Your task to perform on an android device: Show me the best rated power washer on Home Depot. Image 0: 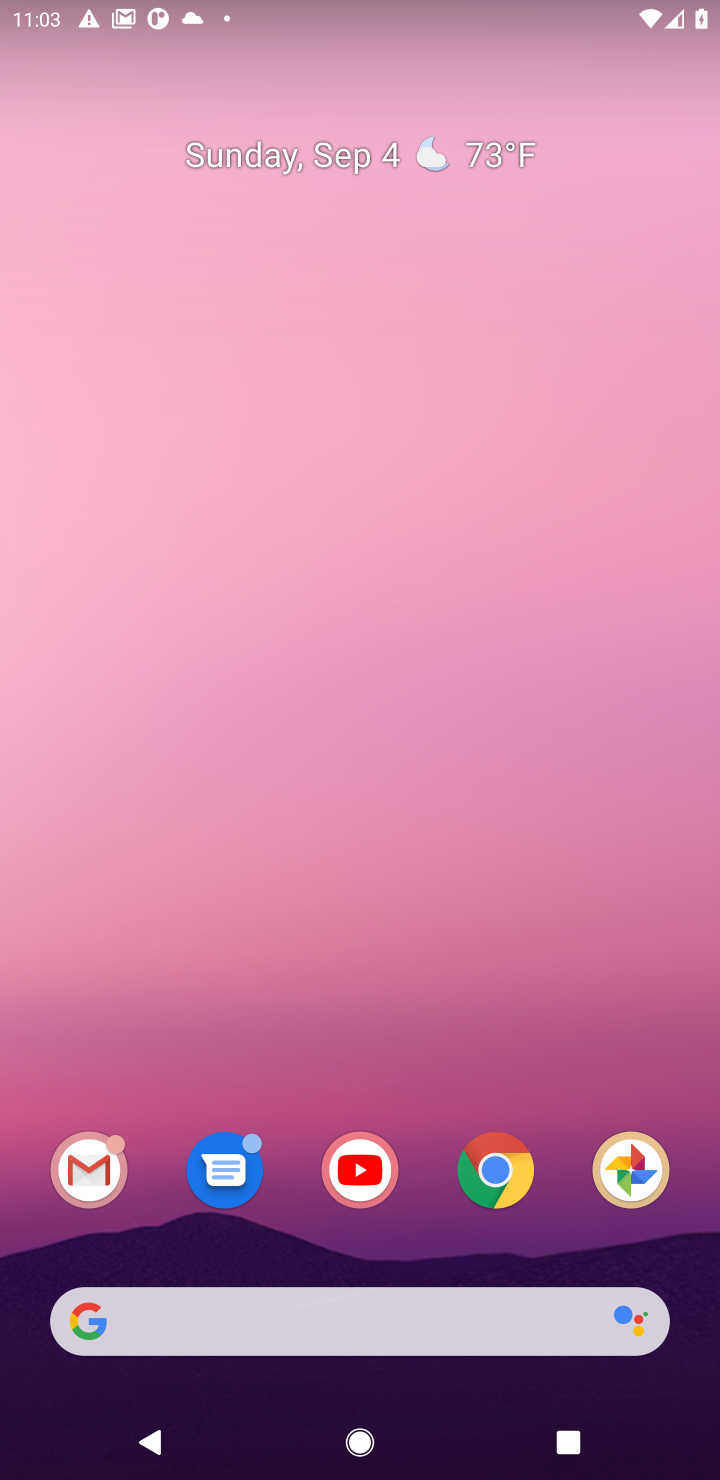
Step 0: press home button
Your task to perform on an android device: Show me the best rated power washer on Home Depot. Image 1: 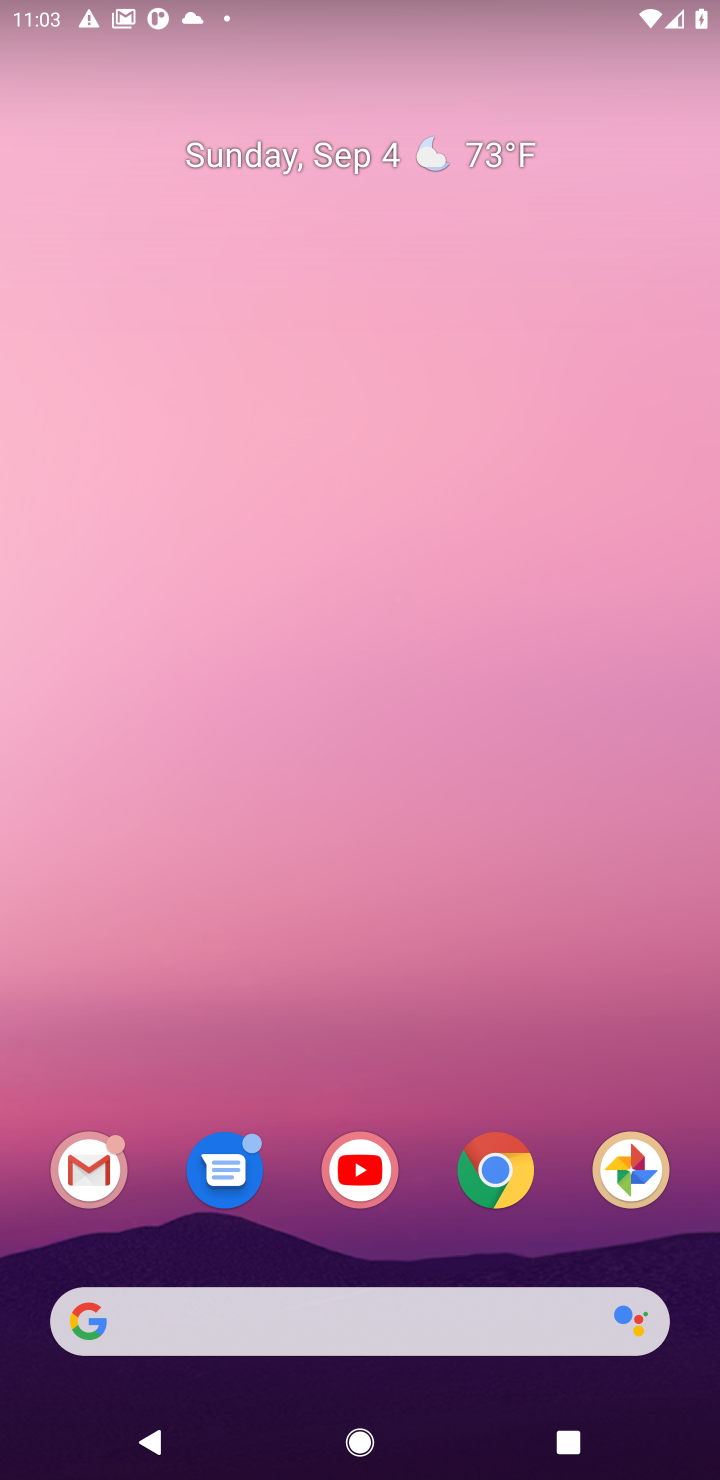
Step 1: drag from (274, 1109) to (272, 77)
Your task to perform on an android device: Show me the best rated power washer on Home Depot. Image 2: 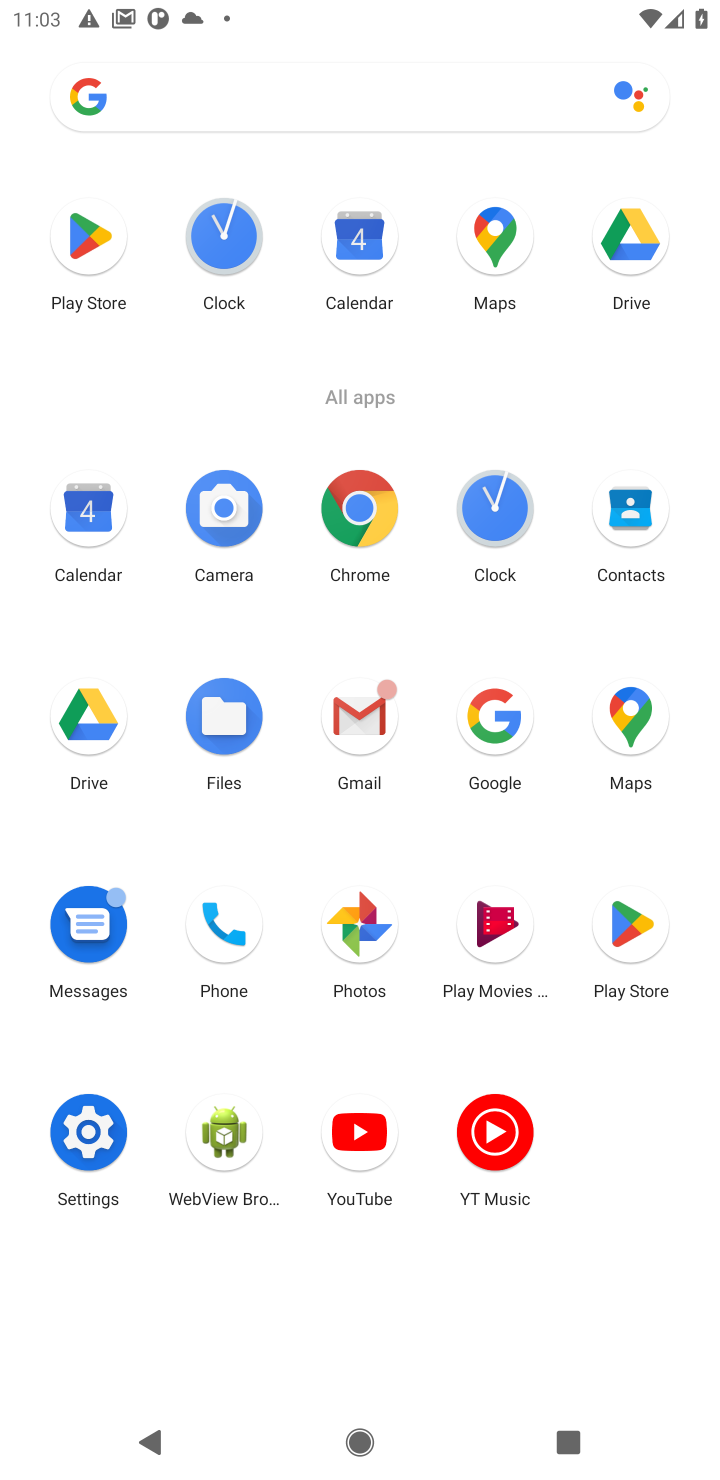
Step 2: click (373, 546)
Your task to perform on an android device: Show me the best rated power washer on Home Depot. Image 3: 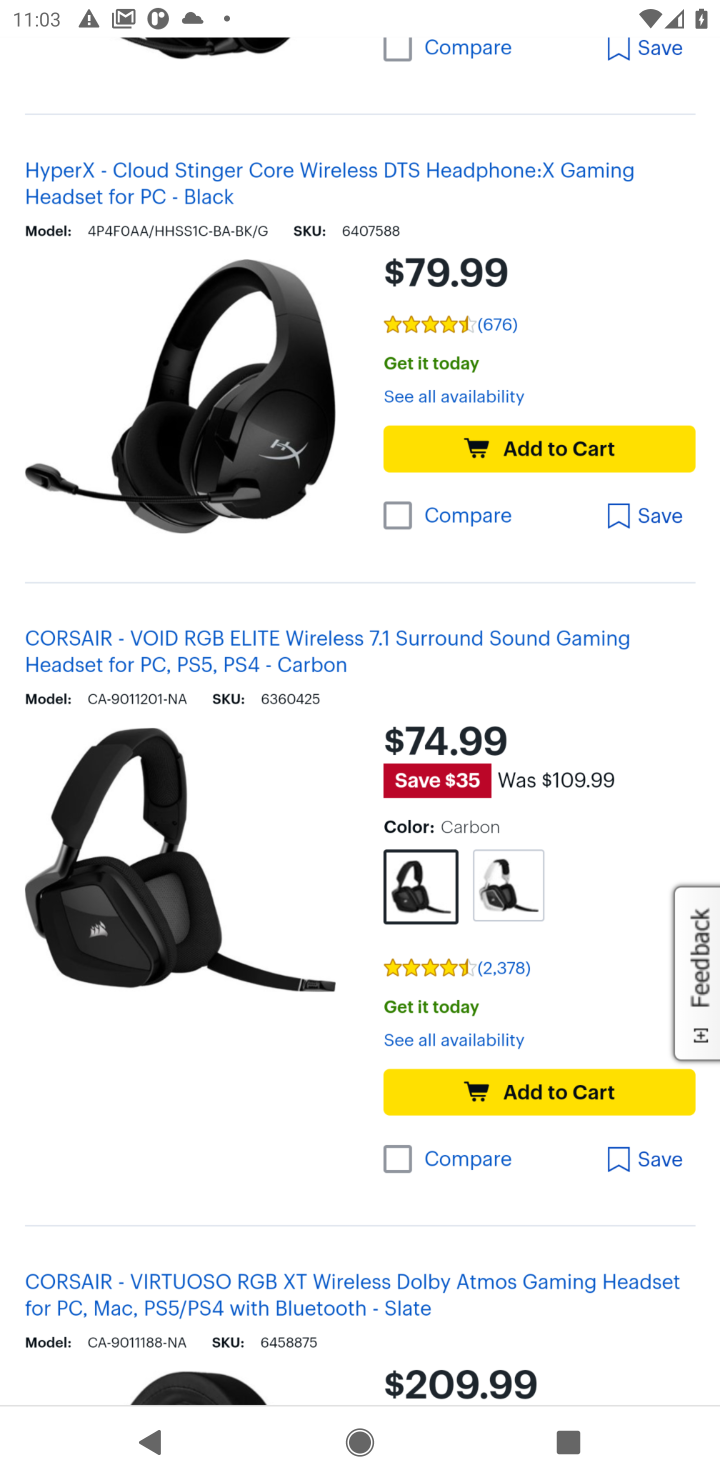
Step 3: drag from (411, 739) to (406, 1375)
Your task to perform on an android device: Show me the best rated power washer on Home Depot. Image 4: 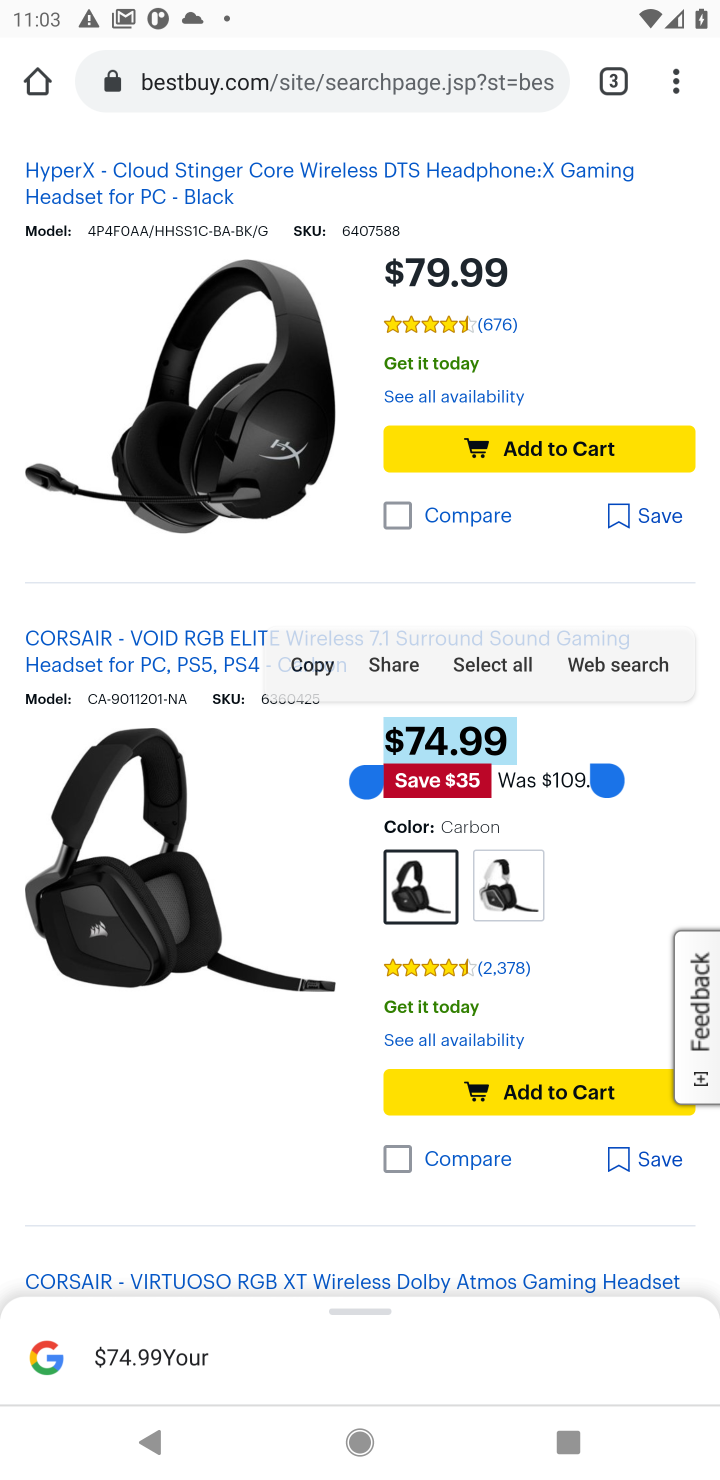
Step 4: click (592, 99)
Your task to perform on an android device: Show me the best rated power washer on Home Depot. Image 5: 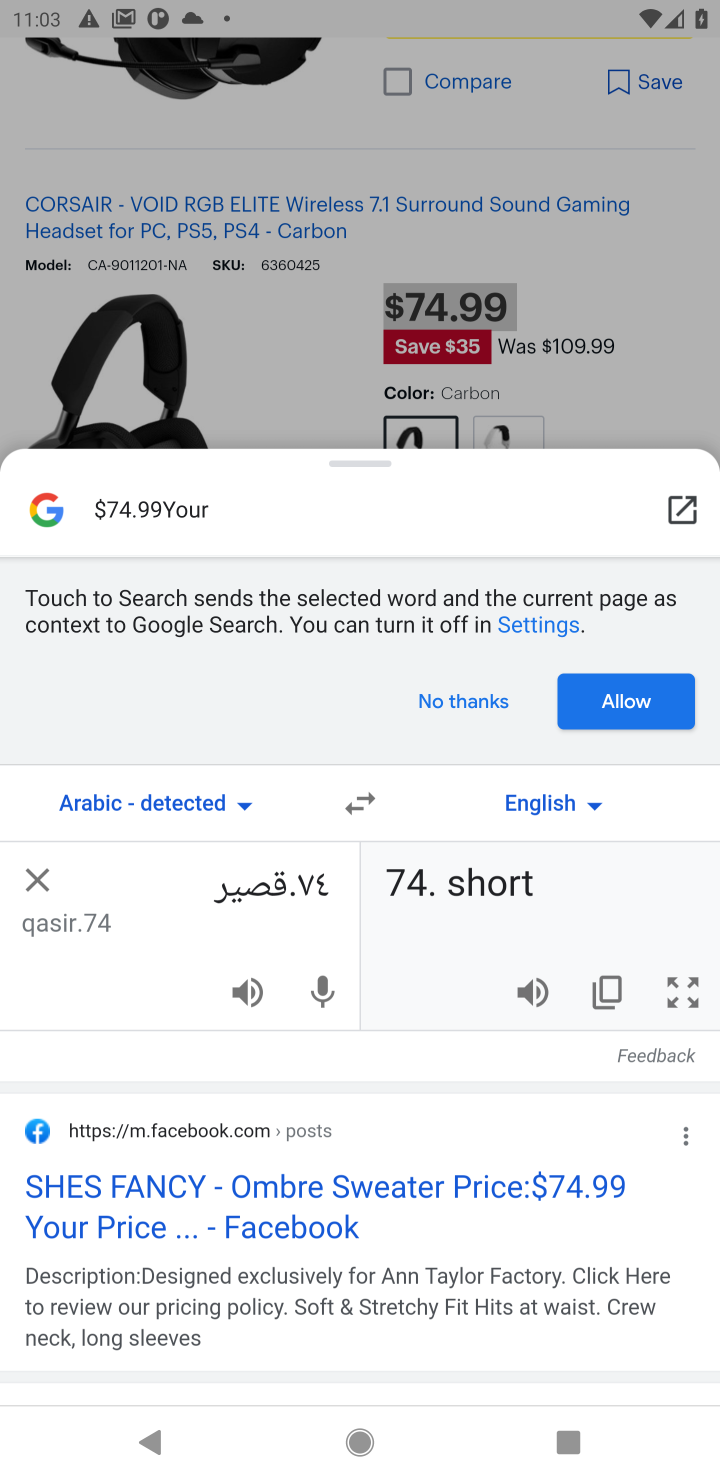
Step 5: press home button
Your task to perform on an android device: Show me the best rated power washer on Home Depot. Image 6: 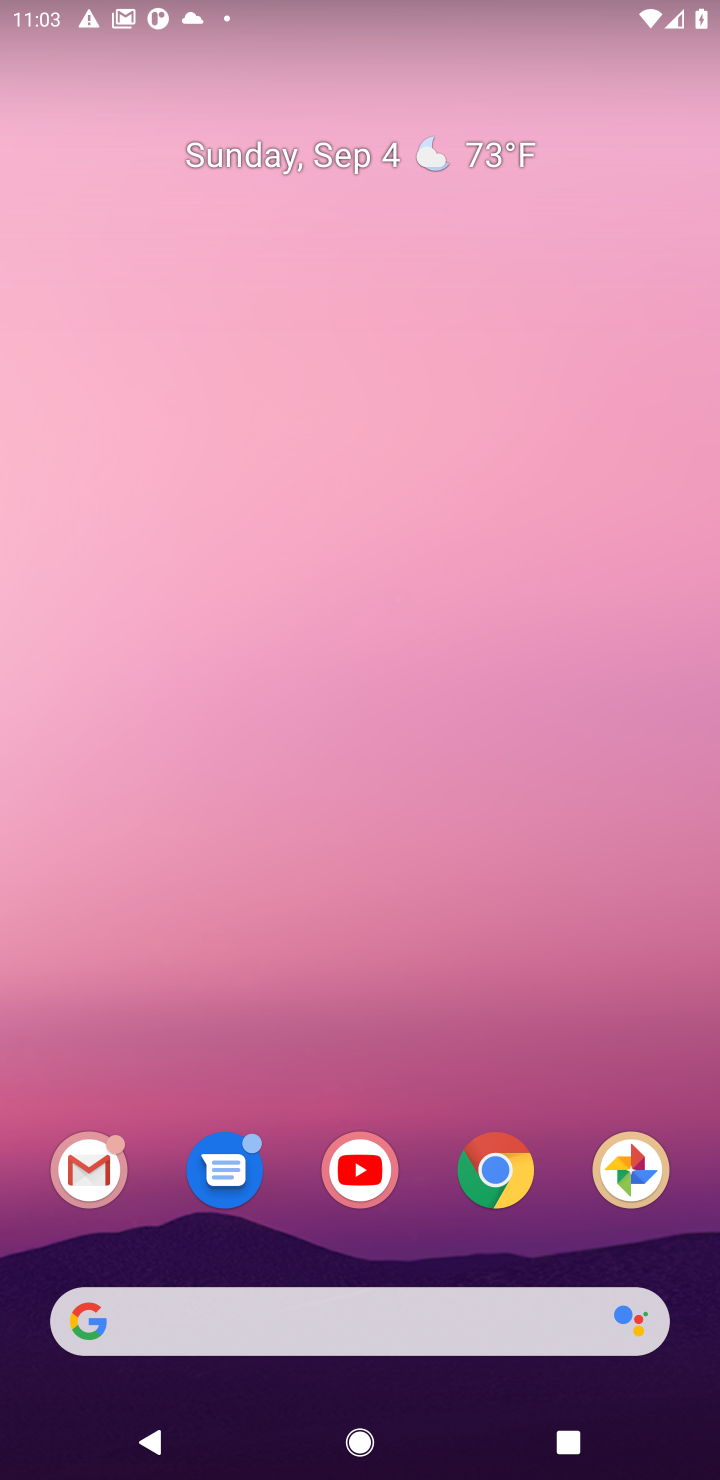
Step 6: drag from (427, 1287) to (434, 430)
Your task to perform on an android device: Show me the best rated power washer on Home Depot. Image 7: 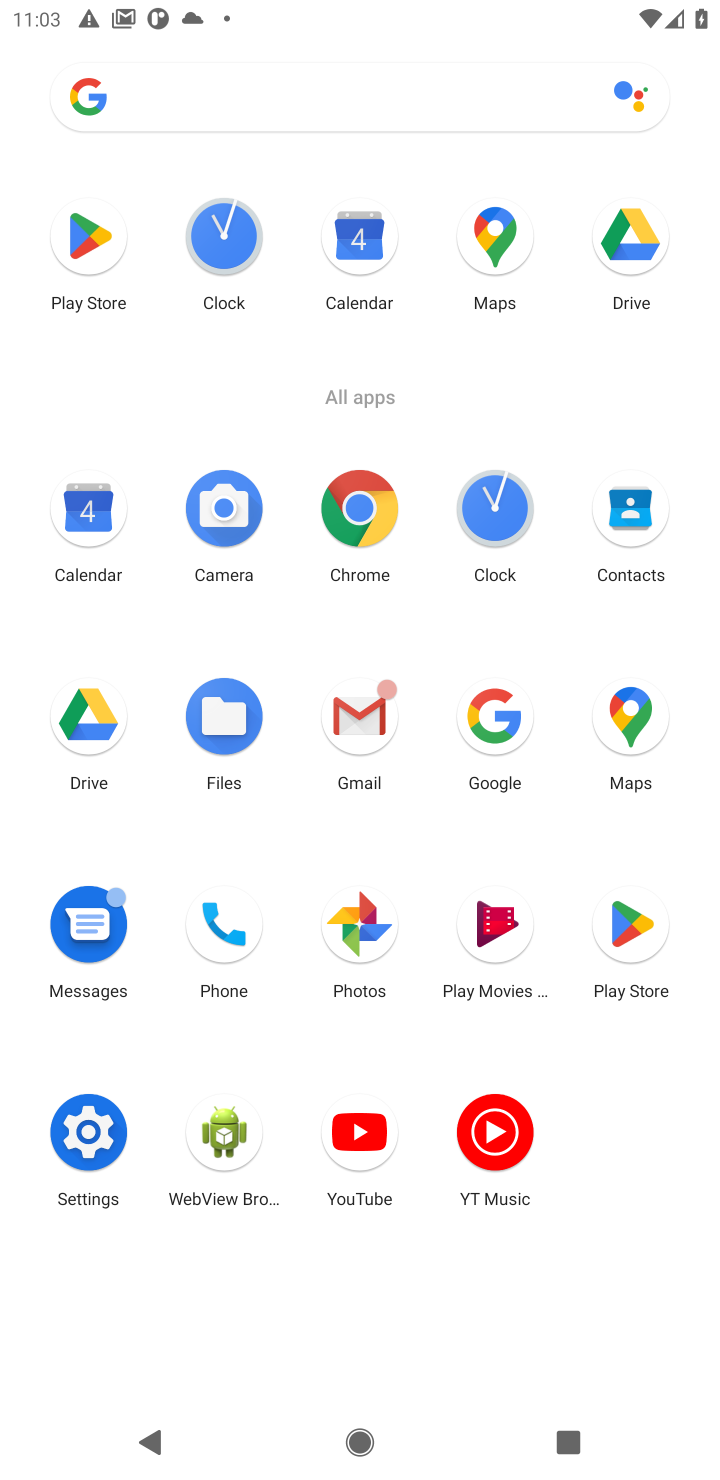
Step 7: click (384, 502)
Your task to perform on an android device: Show me the best rated power washer on Home Depot. Image 8: 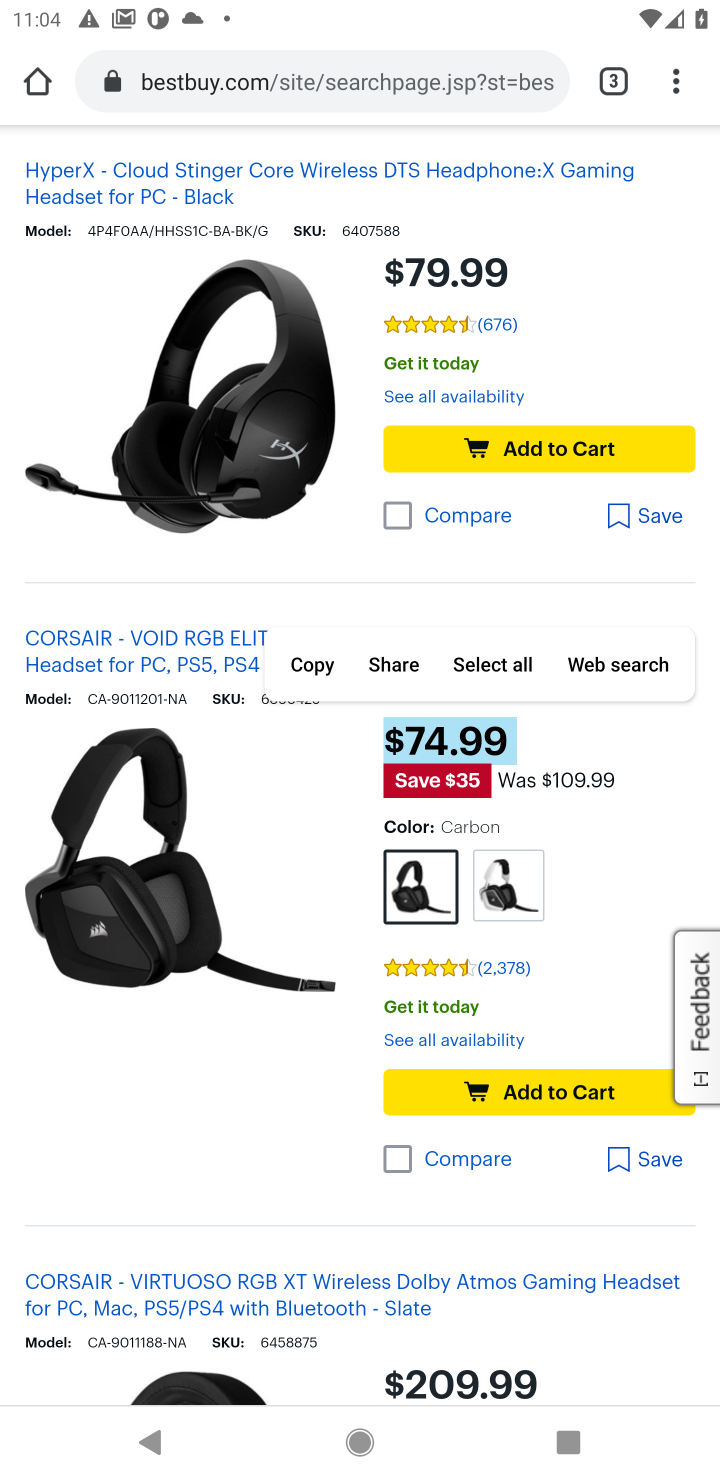
Step 8: press home button
Your task to perform on an android device: Show me the best rated power washer on Home Depot. Image 9: 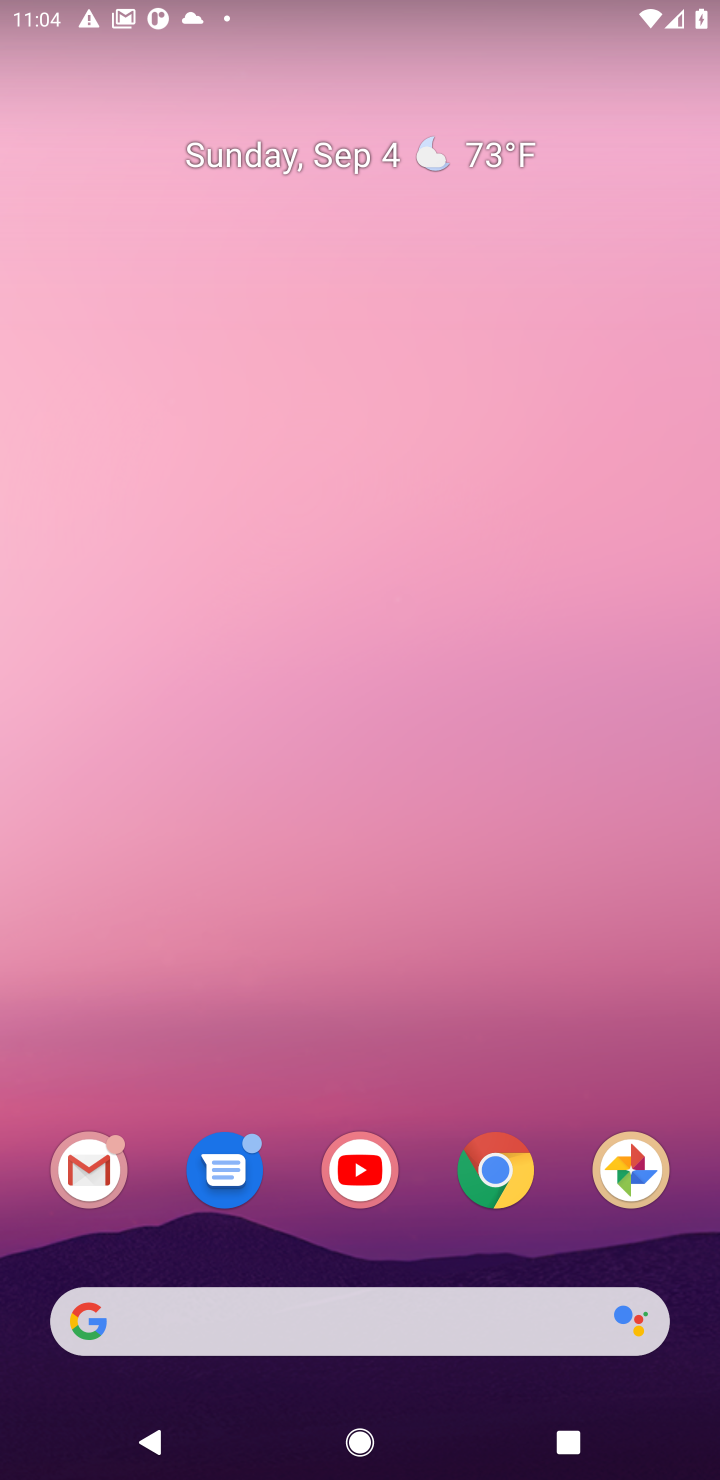
Step 9: drag from (462, 1285) to (341, 282)
Your task to perform on an android device: Show me the best rated power washer on Home Depot. Image 10: 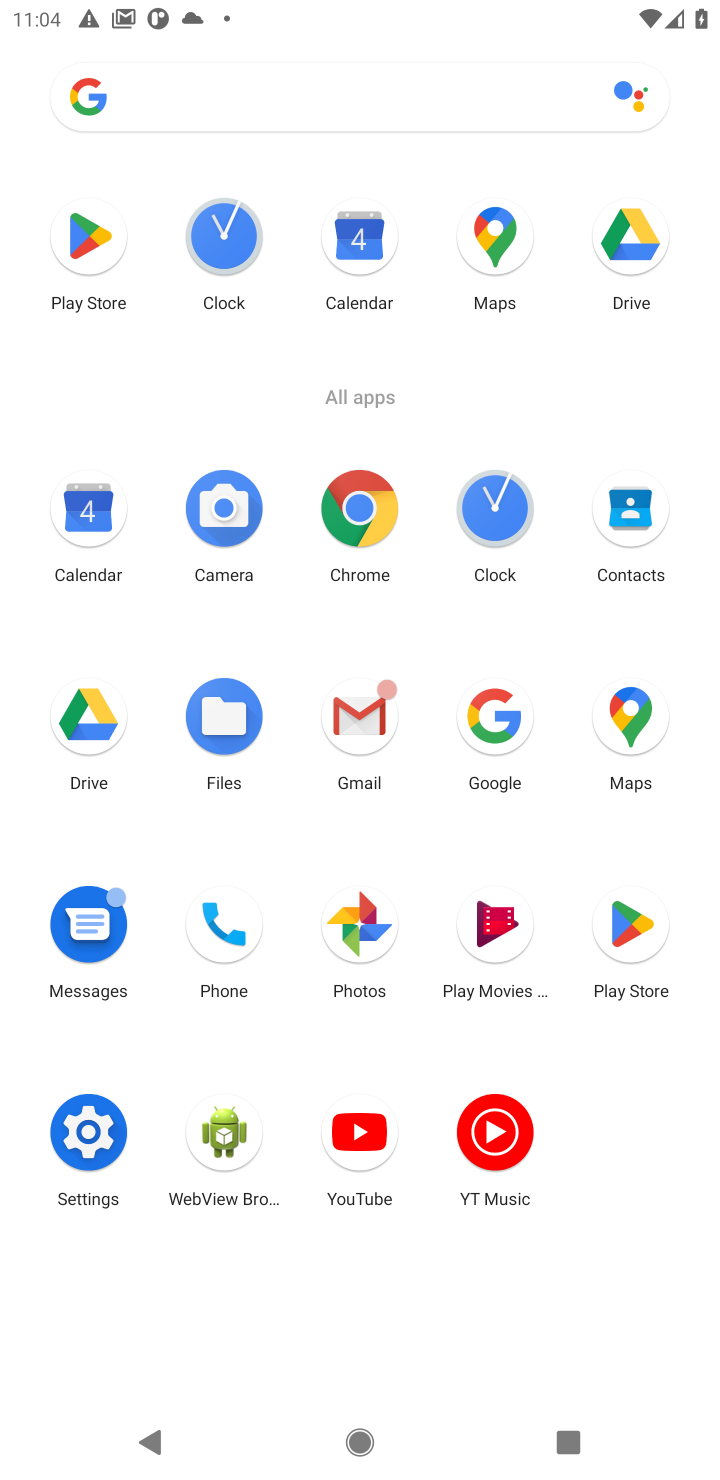
Step 10: click (378, 496)
Your task to perform on an android device: Show me the best rated power washer on Home Depot. Image 11: 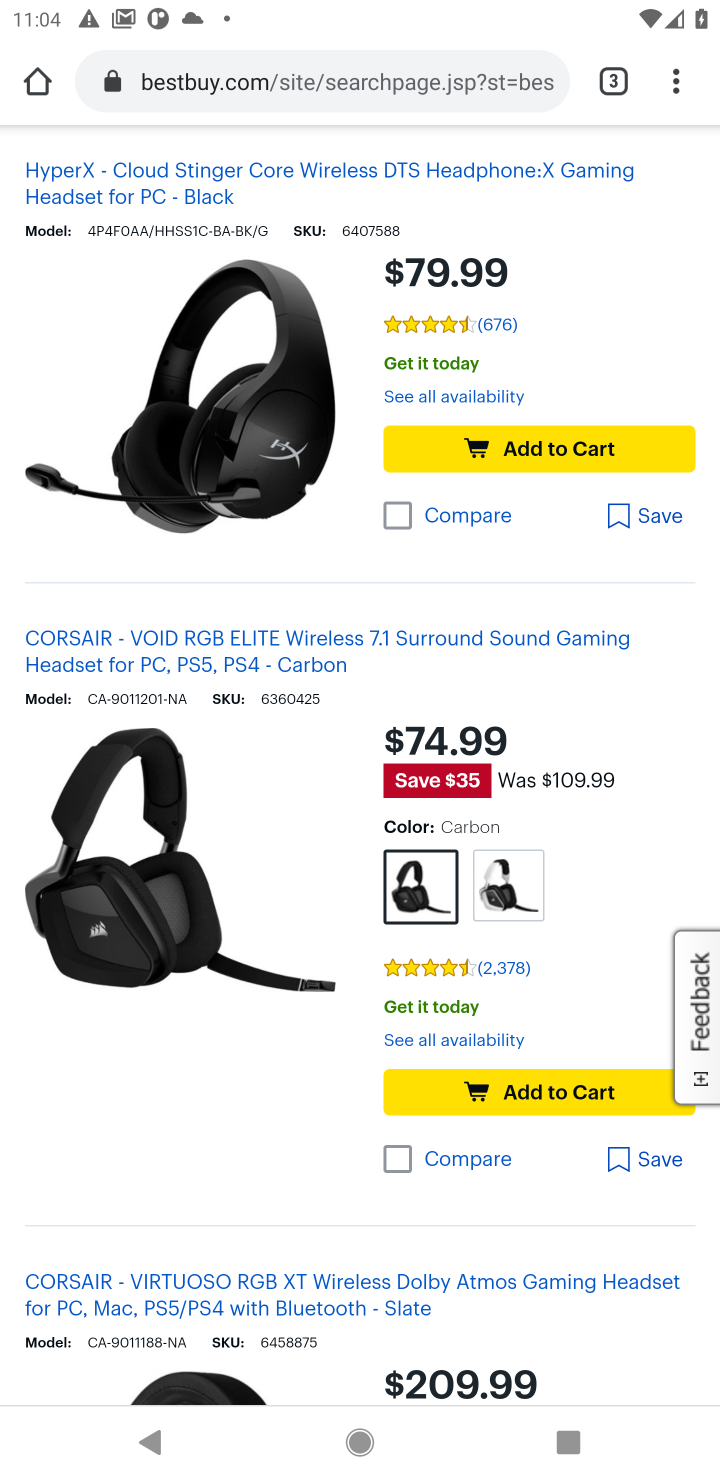
Step 11: click (602, 66)
Your task to perform on an android device: Show me the best rated power washer on Home Depot. Image 12: 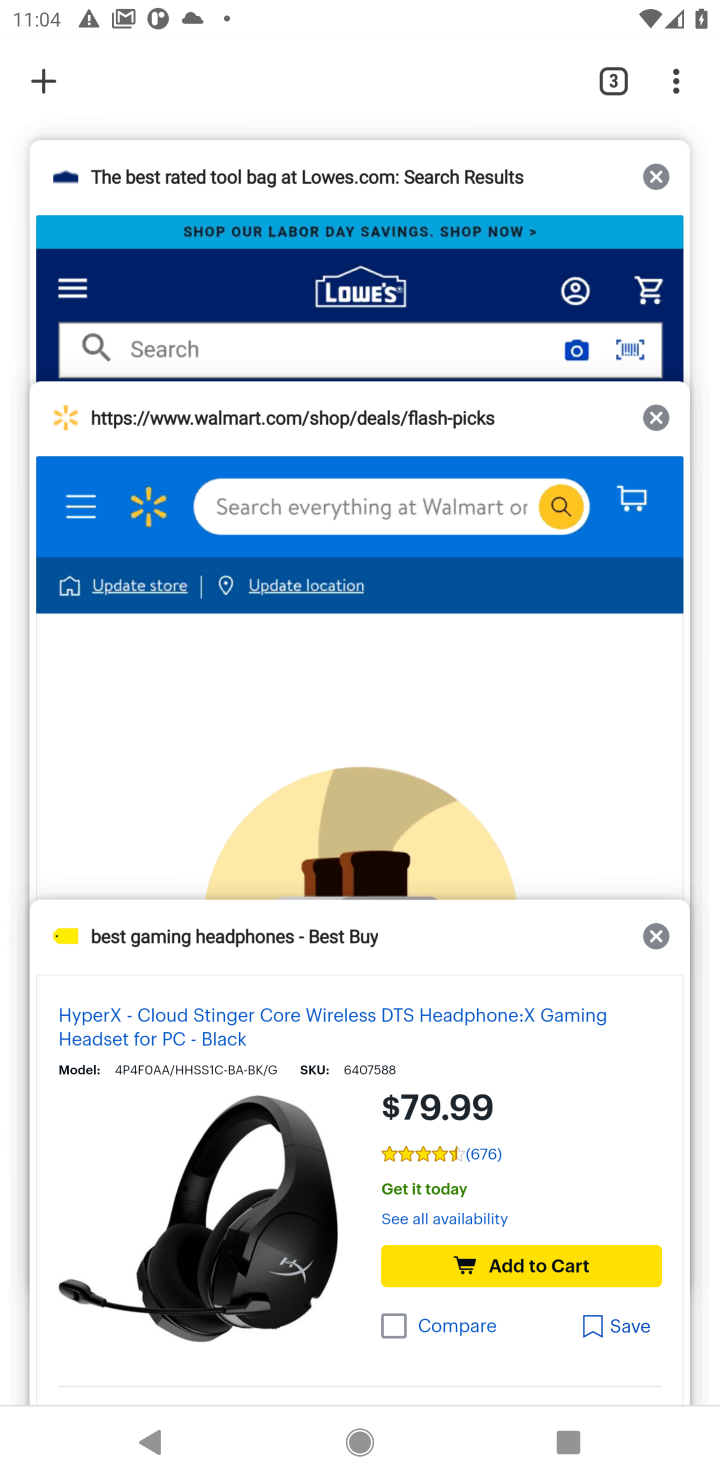
Step 12: click (55, 99)
Your task to perform on an android device: Show me the best rated power washer on Home Depot. Image 13: 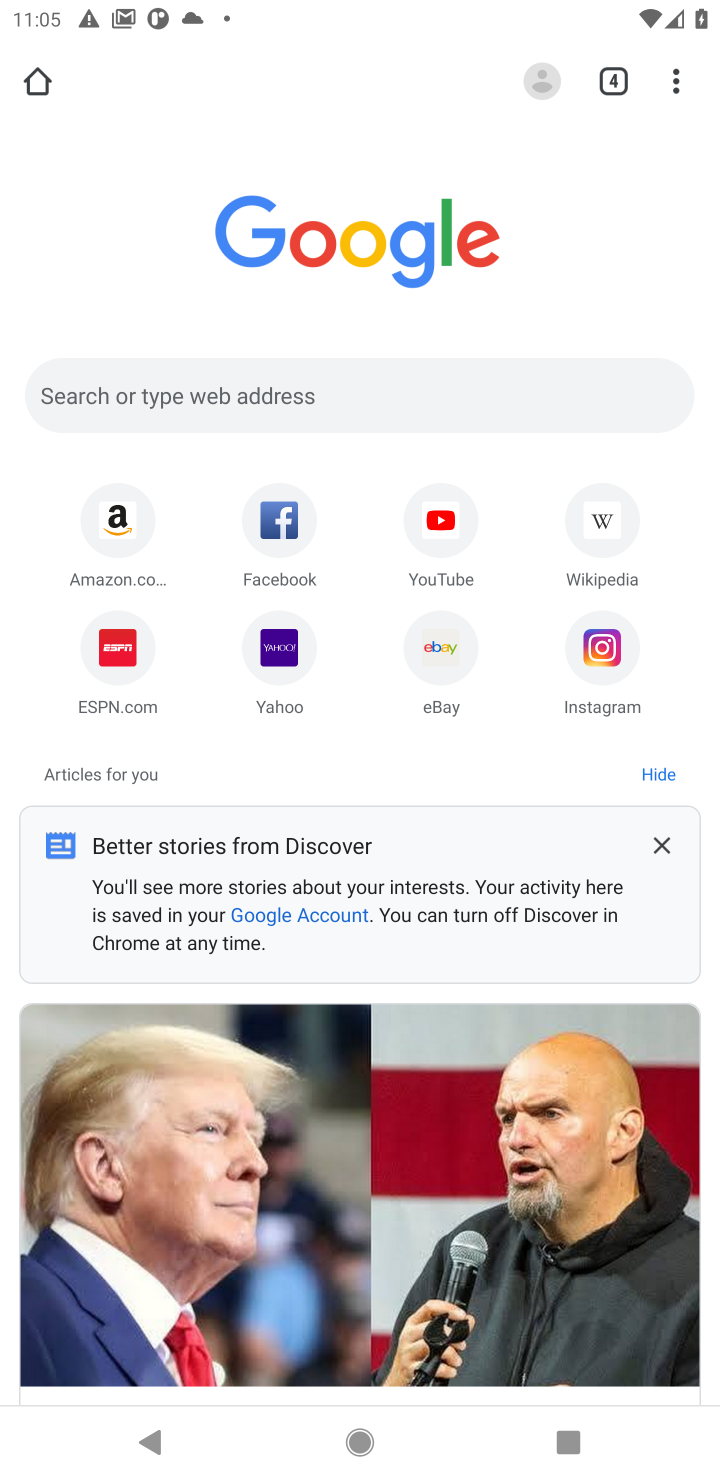
Step 13: click (179, 398)
Your task to perform on an android device: Show me the best rated power washer on Home Depot. Image 14: 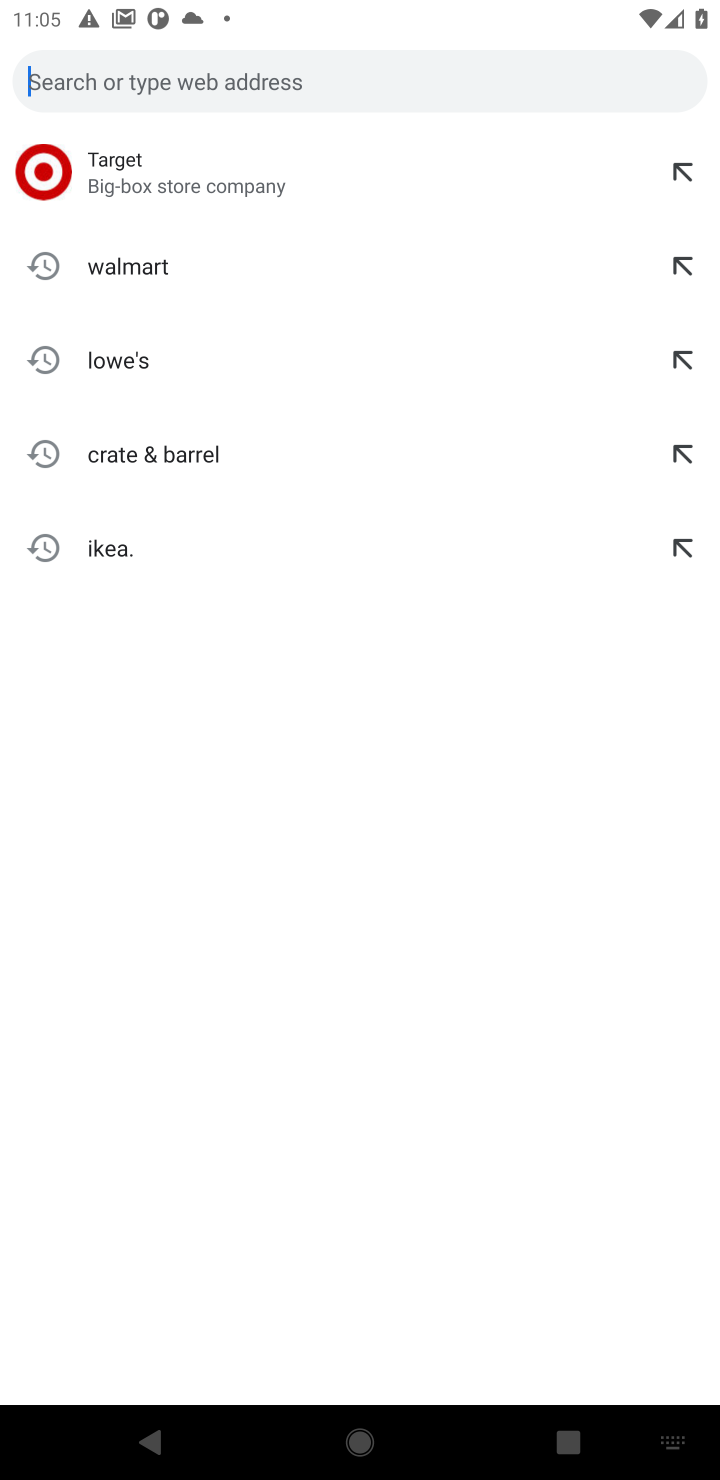
Step 14: type "Home Depot"
Your task to perform on an android device: Show me the best rated power washer on Home Depot. Image 15: 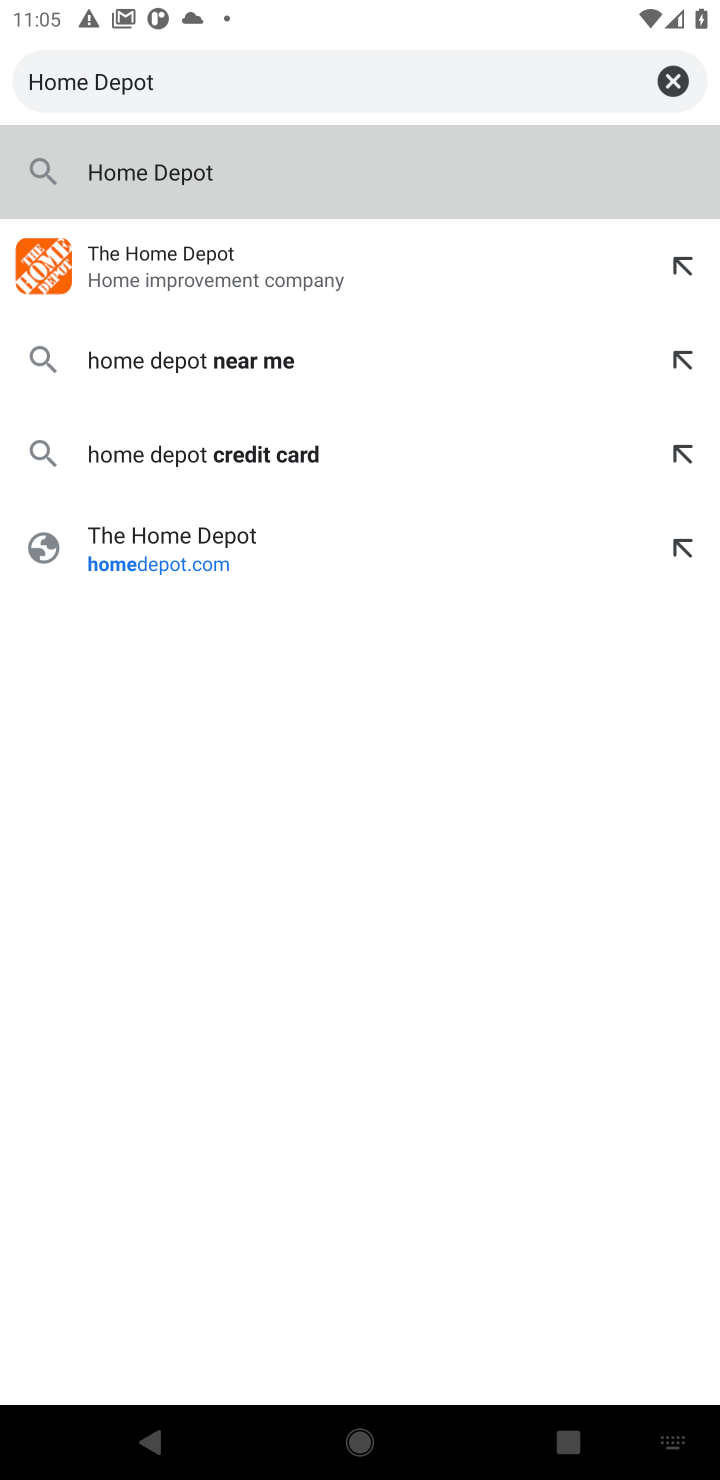
Step 15: type ""
Your task to perform on an android device: Show me the best rated power washer on Home Depot. Image 16: 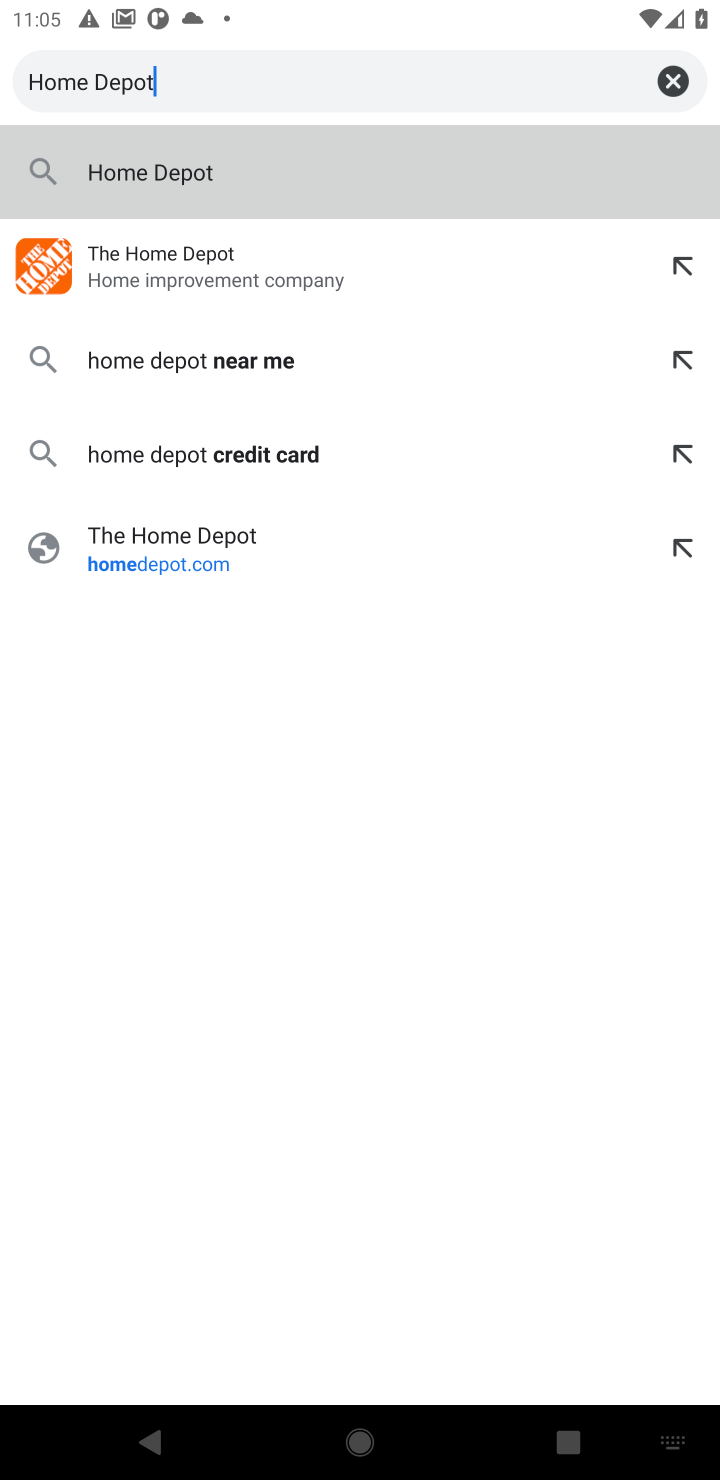
Step 16: click (154, 197)
Your task to perform on an android device: Show me the best rated power washer on Home Depot. Image 17: 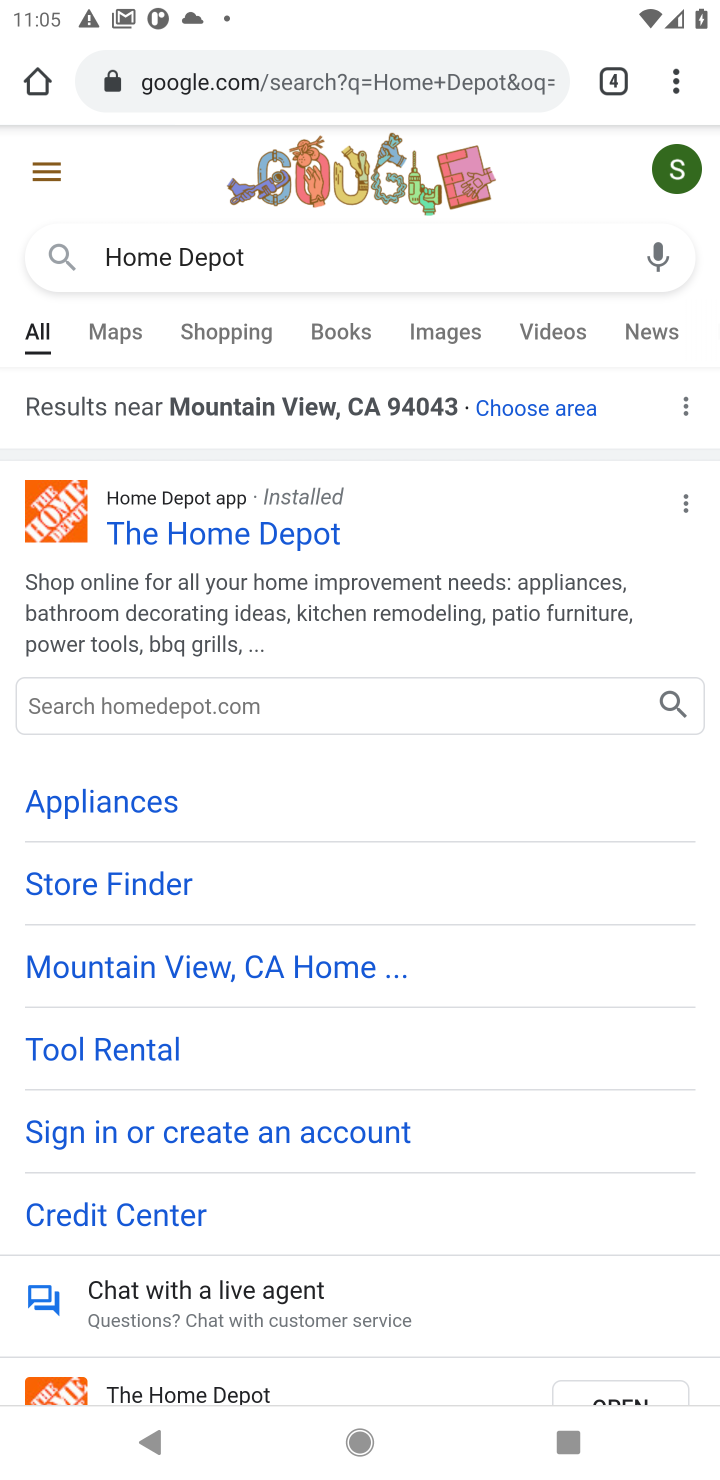
Step 17: click (190, 523)
Your task to perform on an android device: Show me the best rated power washer on Home Depot. Image 18: 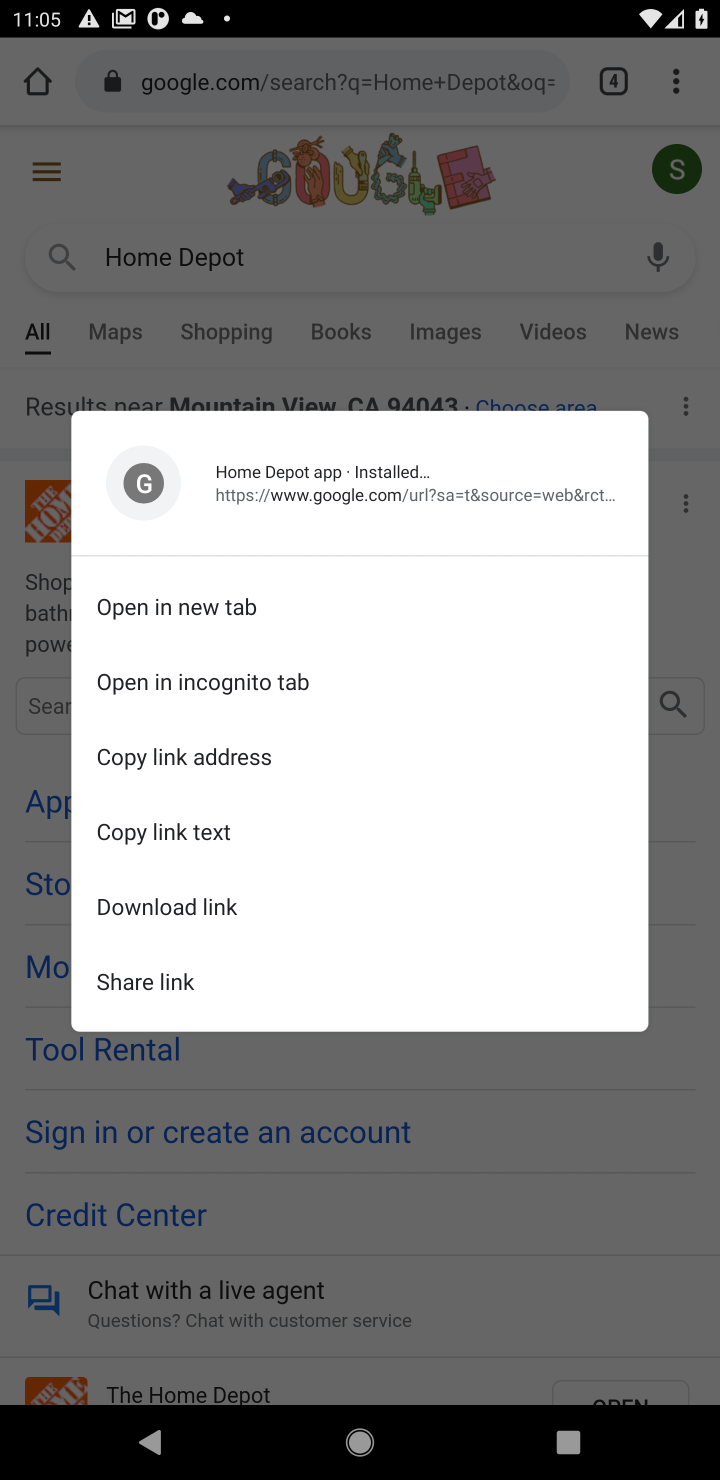
Step 18: click (696, 782)
Your task to perform on an android device: Show me the best rated power washer on Home Depot. Image 19: 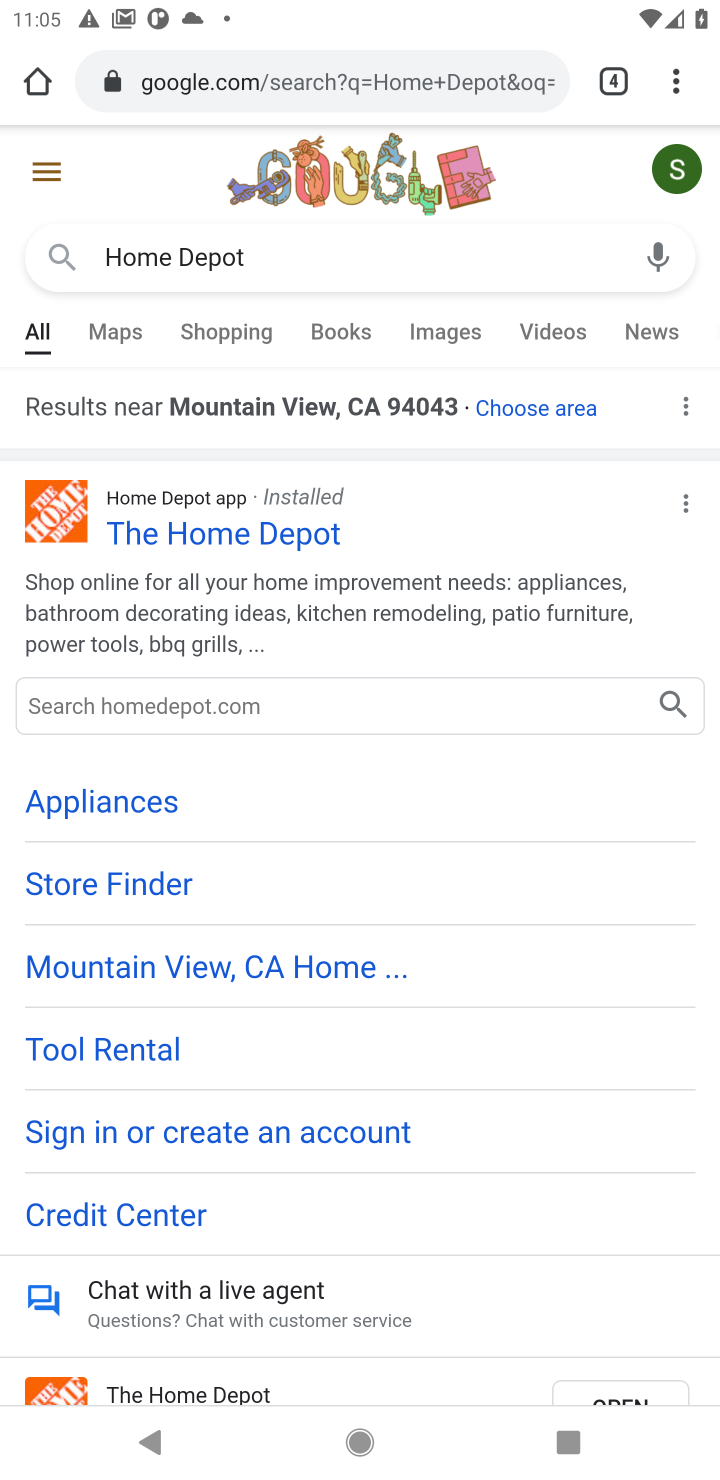
Step 19: click (164, 514)
Your task to perform on an android device: Show me the best rated power washer on Home Depot. Image 20: 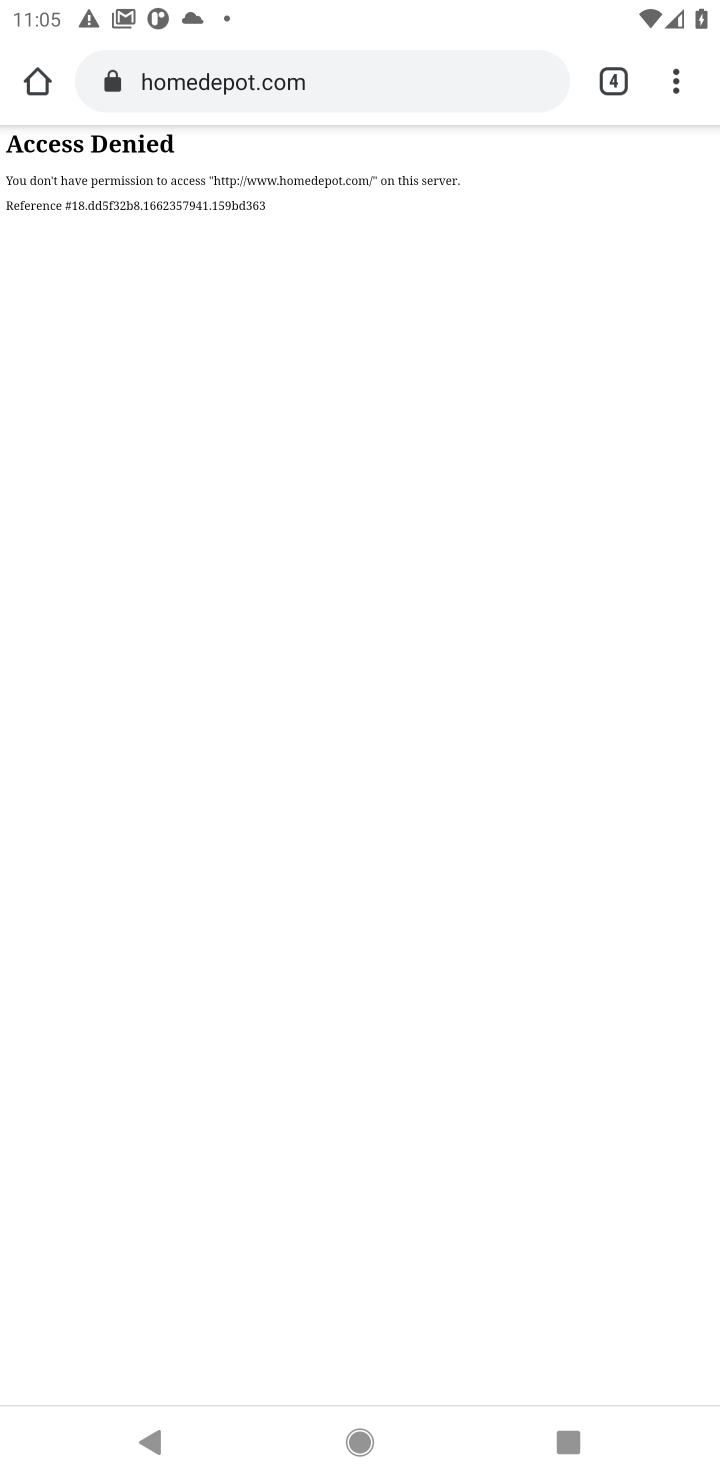
Step 20: task complete